Your task to perform on an android device: Search for pizza restaurants on Maps Image 0: 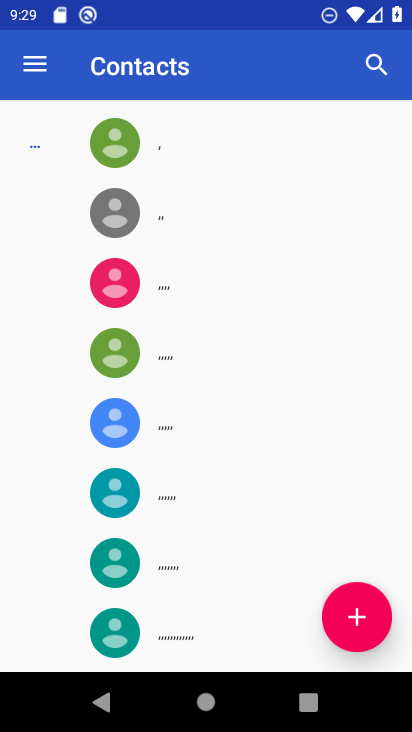
Step 0: press home button
Your task to perform on an android device: Search for pizza restaurants on Maps Image 1: 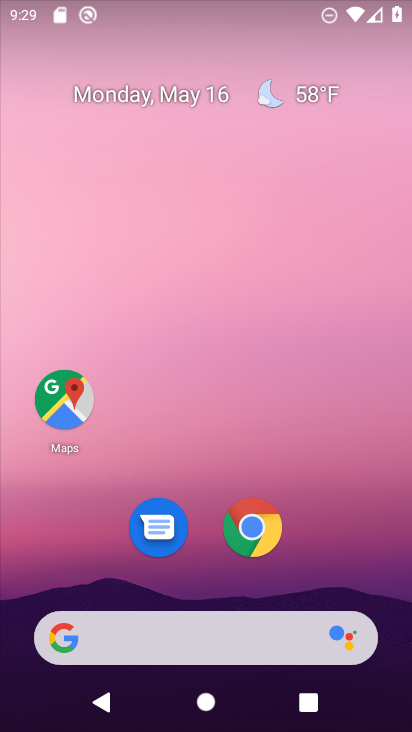
Step 1: click (65, 405)
Your task to perform on an android device: Search for pizza restaurants on Maps Image 2: 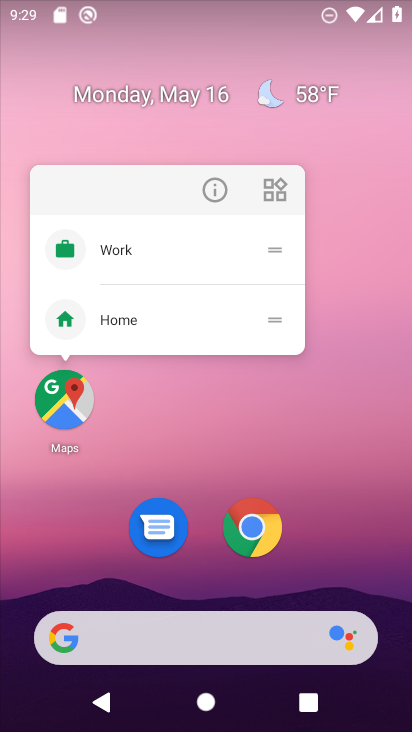
Step 2: click (65, 405)
Your task to perform on an android device: Search for pizza restaurants on Maps Image 3: 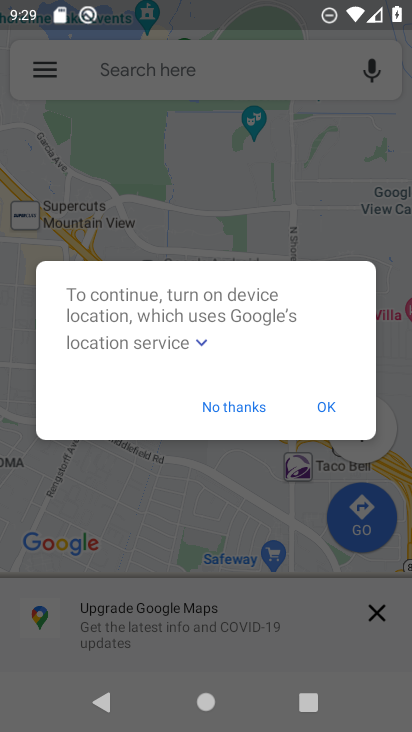
Step 3: click (120, 73)
Your task to perform on an android device: Search for pizza restaurants on Maps Image 4: 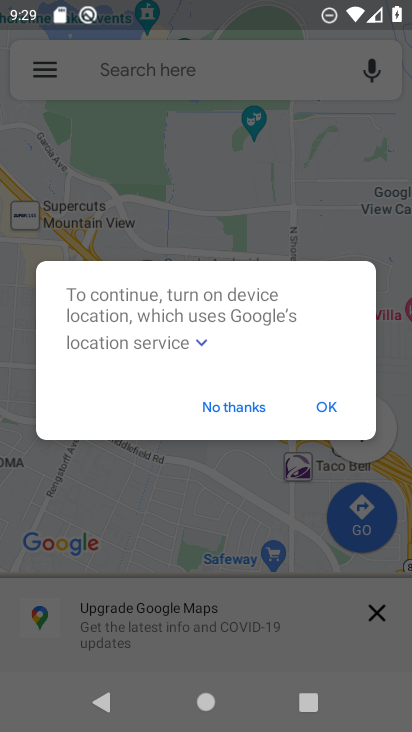
Step 4: click (321, 400)
Your task to perform on an android device: Search for pizza restaurants on Maps Image 5: 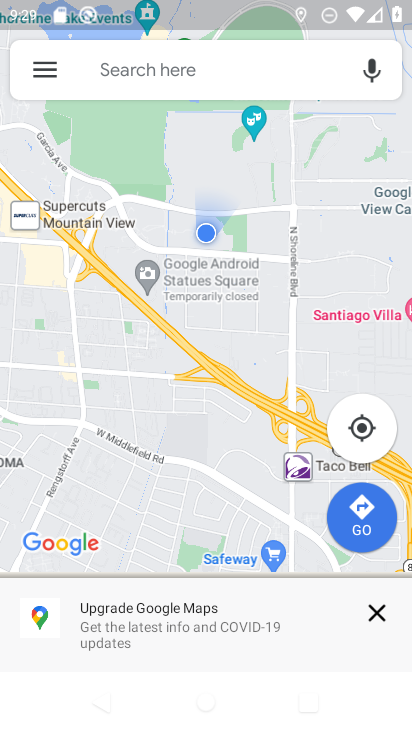
Step 5: click (98, 75)
Your task to perform on an android device: Search for pizza restaurants on Maps Image 6: 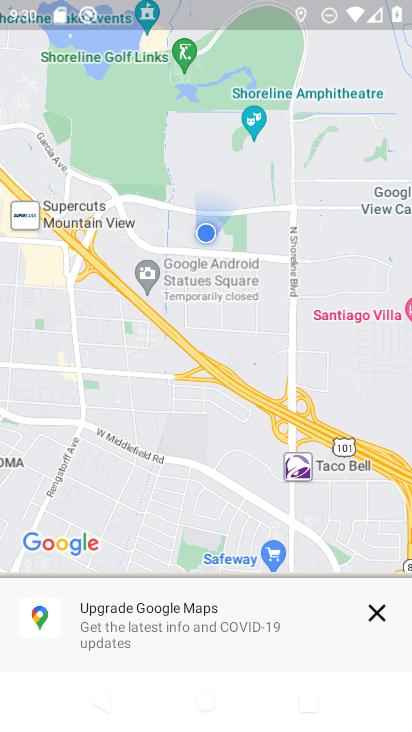
Step 6: click (364, 610)
Your task to perform on an android device: Search for pizza restaurants on Maps Image 7: 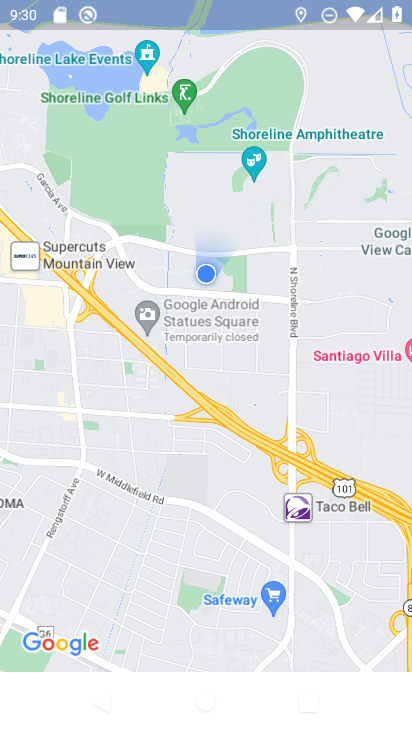
Step 7: press back button
Your task to perform on an android device: Search for pizza restaurants on Maps Image 8: 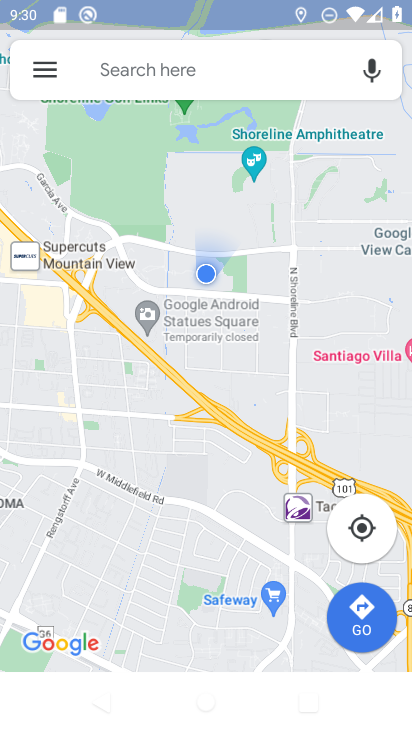
Step 8: click (112, 66)
Your task to perform on an android device: Search for pizza restaurants on Maps Image 9: 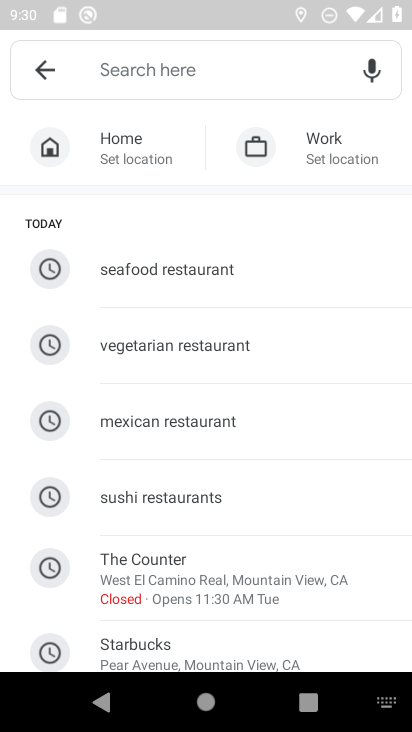
Step 9: type " pizza restaurants"
Your task to perform on an android device: Search for pizza restaurants on Maps Image 10: 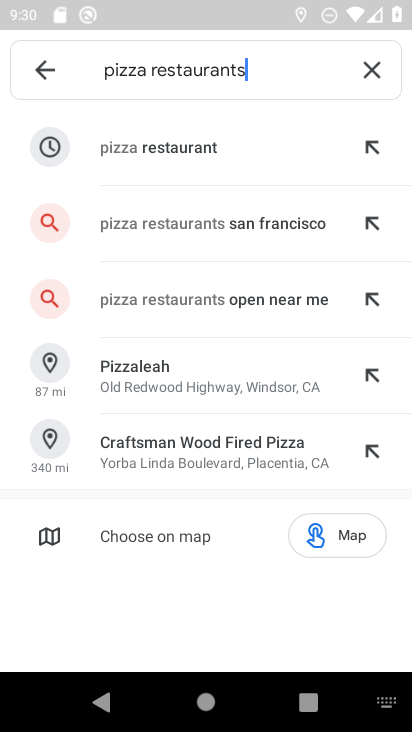
Step 10: click (187, 143)
Your task to perform on an android device: Search for pizza restaurants on Maps Image 11: 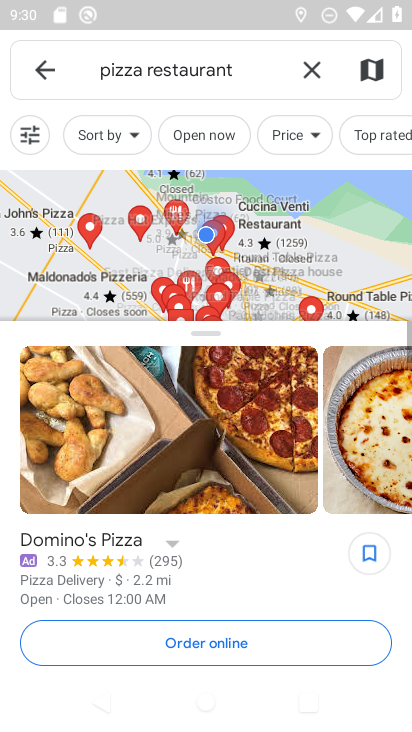
Step 11: task complete